Your task to perform on an android device: turn off location Image 0: 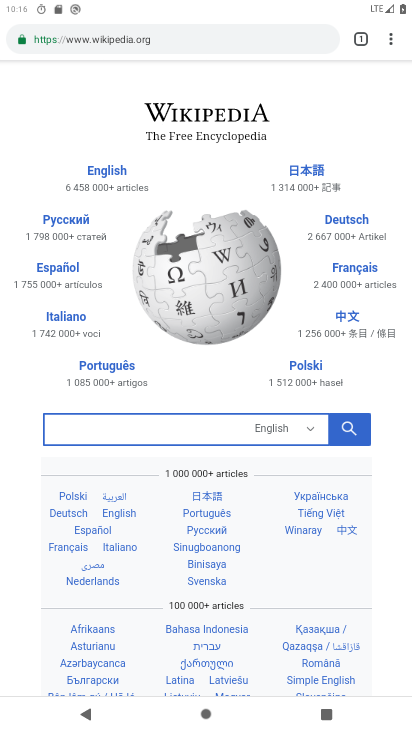
Step 0: press home button
Your task to perform on an android device: turn off location Image 1: 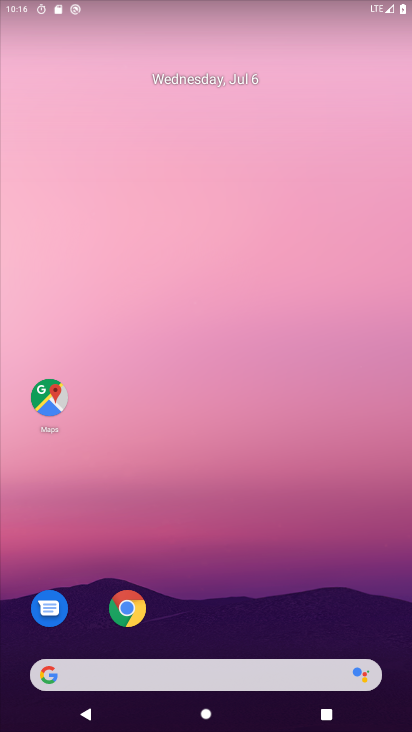
Step 1: drag from (243, 451) to (289, 164)
Your task to perform on an android device: turn off location Image 2: 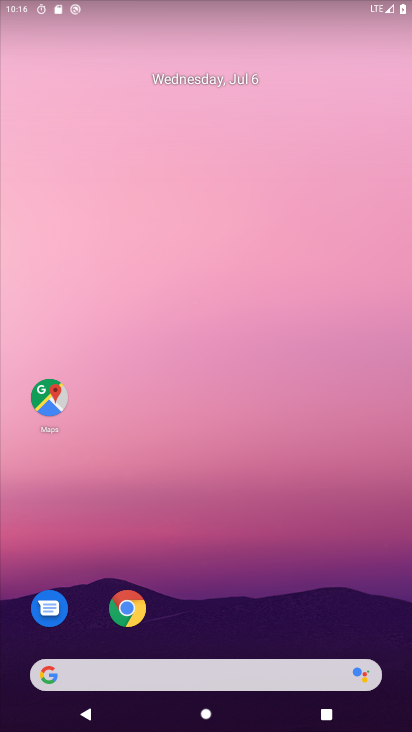
Step 2: drag from (220, 580) to (136, 3)
Your task to perform on an android device: turn off location Image 3: 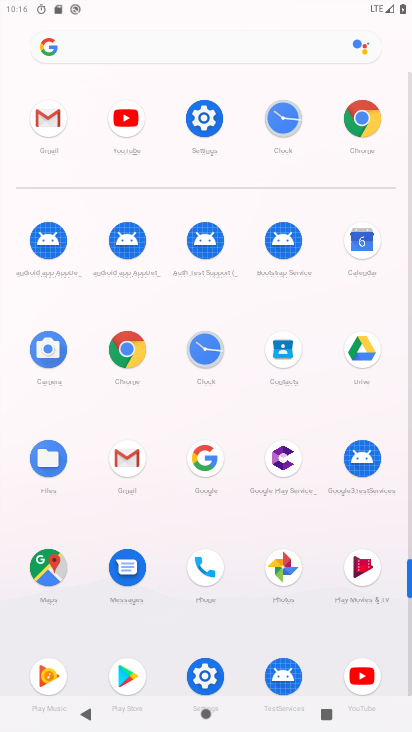
Step 3: click (213, 670)
Your task to perform on an android device: turn off location Image 4: 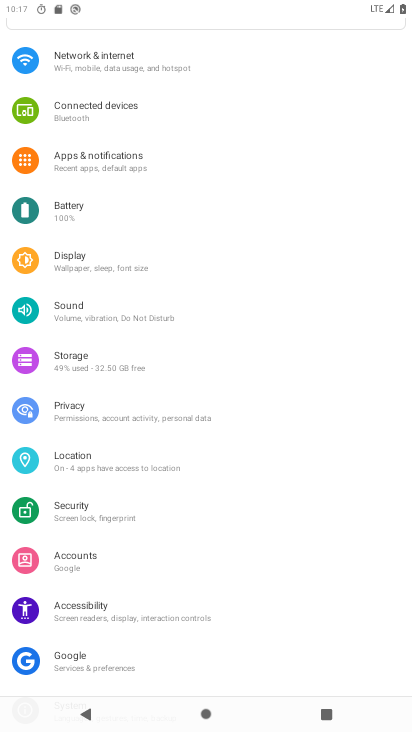
Step 4: click (111, 459)
Your task to perform on an android device: turn off location Image 5: 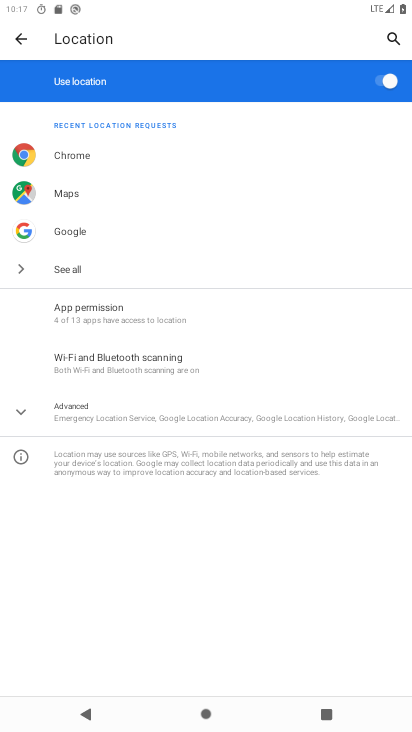
Step 5: click (360, 78)
Your task to perform on an android device: turn off location Image 6: 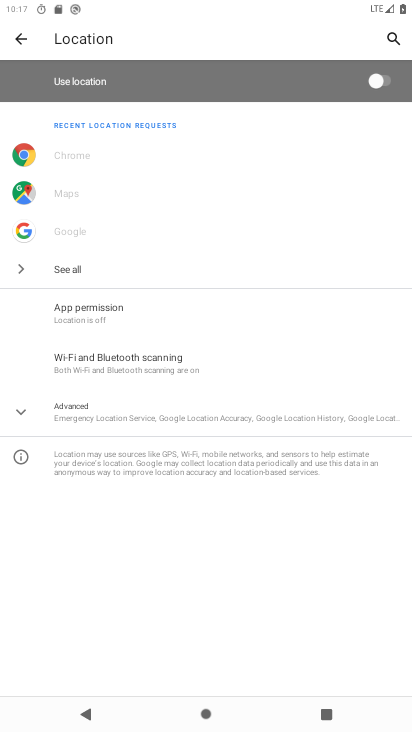
Step 6: task complete